Your task to perform on an android device: Go to sound settings Image 0: 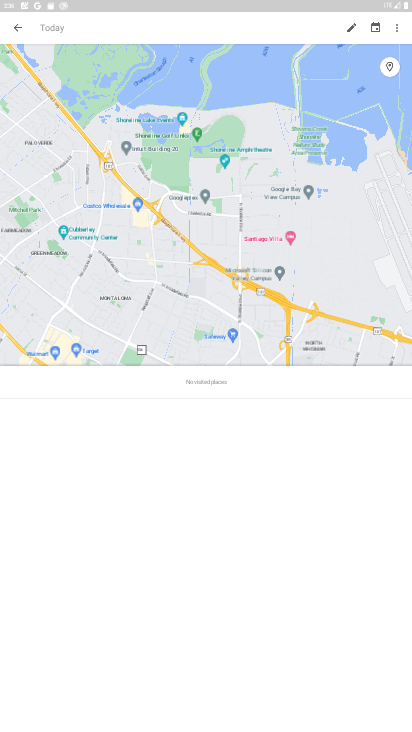
Step 0: press home button
Your task to perform on an android device: Go to sound settings Image 1: 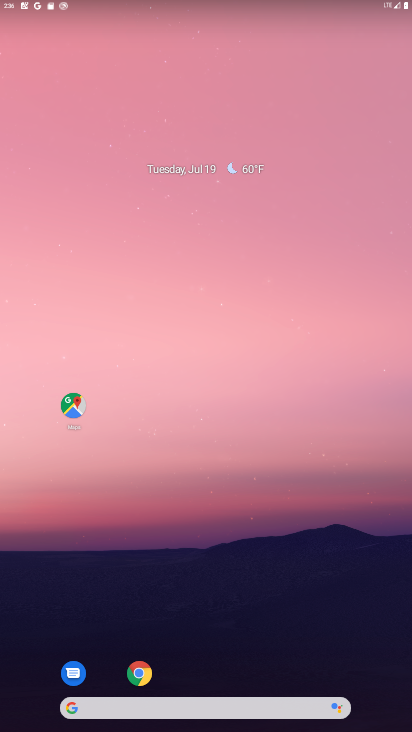
Step 1: drag from (219, 680) to (283, 30)
Your task to perform on an android device: Go to sound settings Image 2: 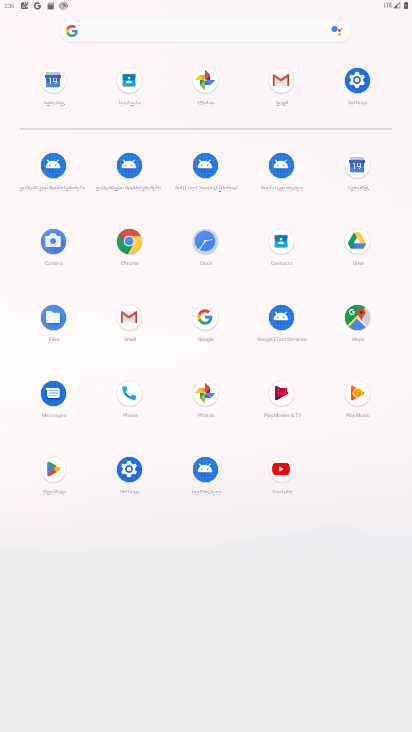
Step 2: click (360, 81)
Your task to perform on an android device: Go to sound settings Image 3: 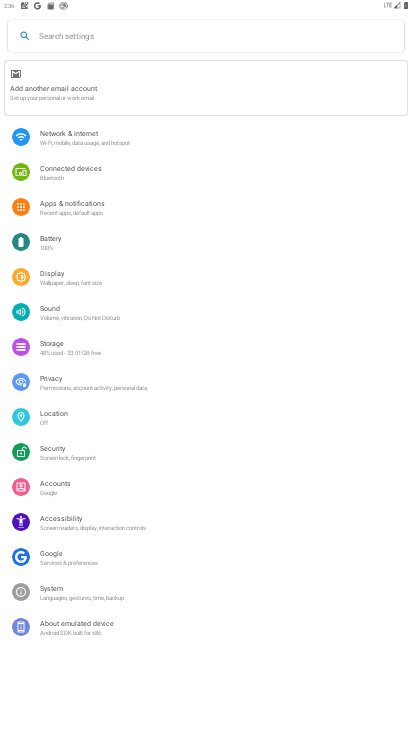
Step 3: click (129, 316)
Your task to perform on an android device: Go to sound settings Image 4: 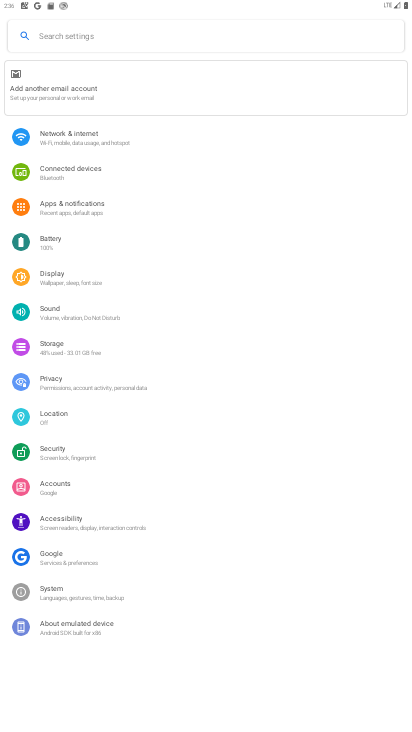
Step 4: click (129, 316)
Your task to perform on an android device: Go to sound settings Image 5: 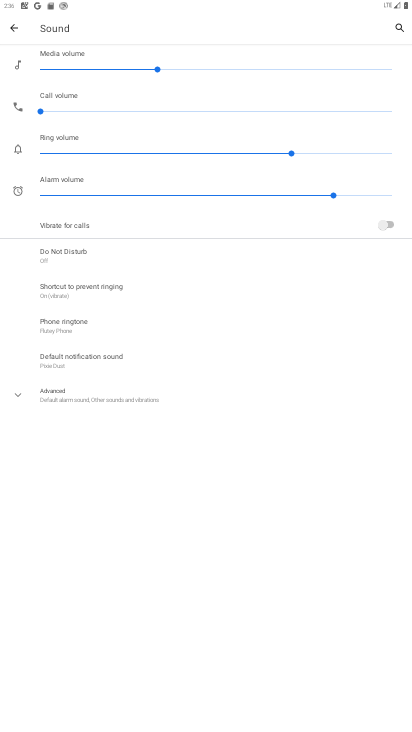
Step 5: task complete